Your task to perform on an android device: toggle airplane mode Image 0: 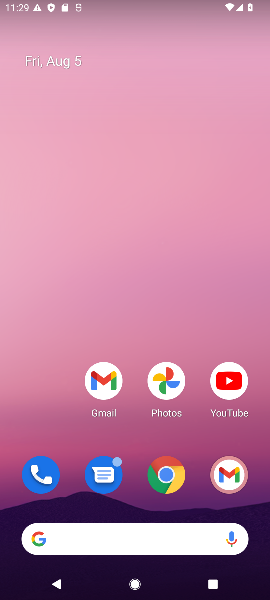
Step 0: drag from (140, 514) to (130, 35)
Your task to perform on an android device: toggle airplane mode Image 1: 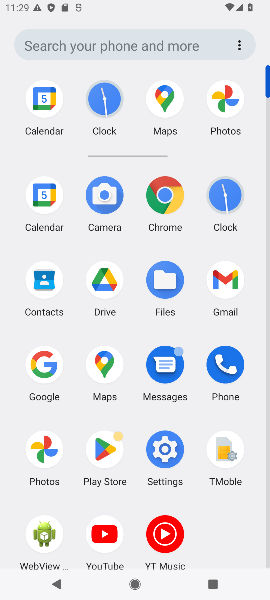
Step 1: click (168, 462)
Your task to perform on an android device: toggle airplane mode Image 2: 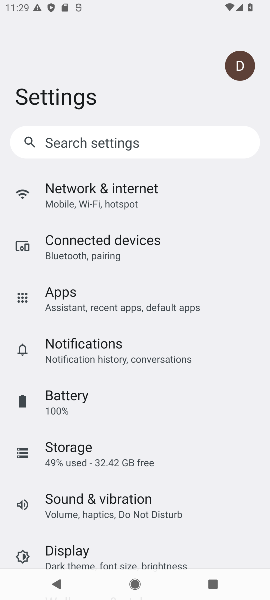
Step 2: click (96, 191)
Your task to perform on an android device: toggle airplane mode Image 3: 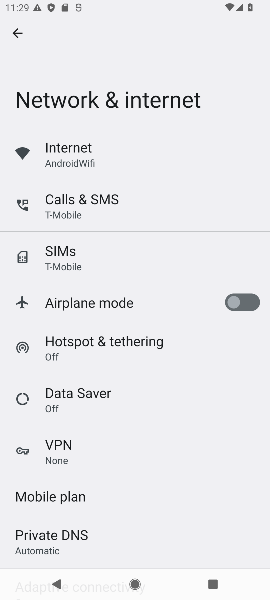
Step 3: click (252, 296)
Your task to perform on an android device: toggle airplane mode Image 4: 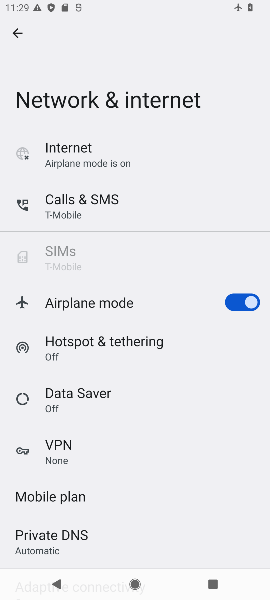
Step 4: task complete